Your task to perform on an android device: Add "rayovac triple a" to the cart on amazon, then select checkout. Image 0: 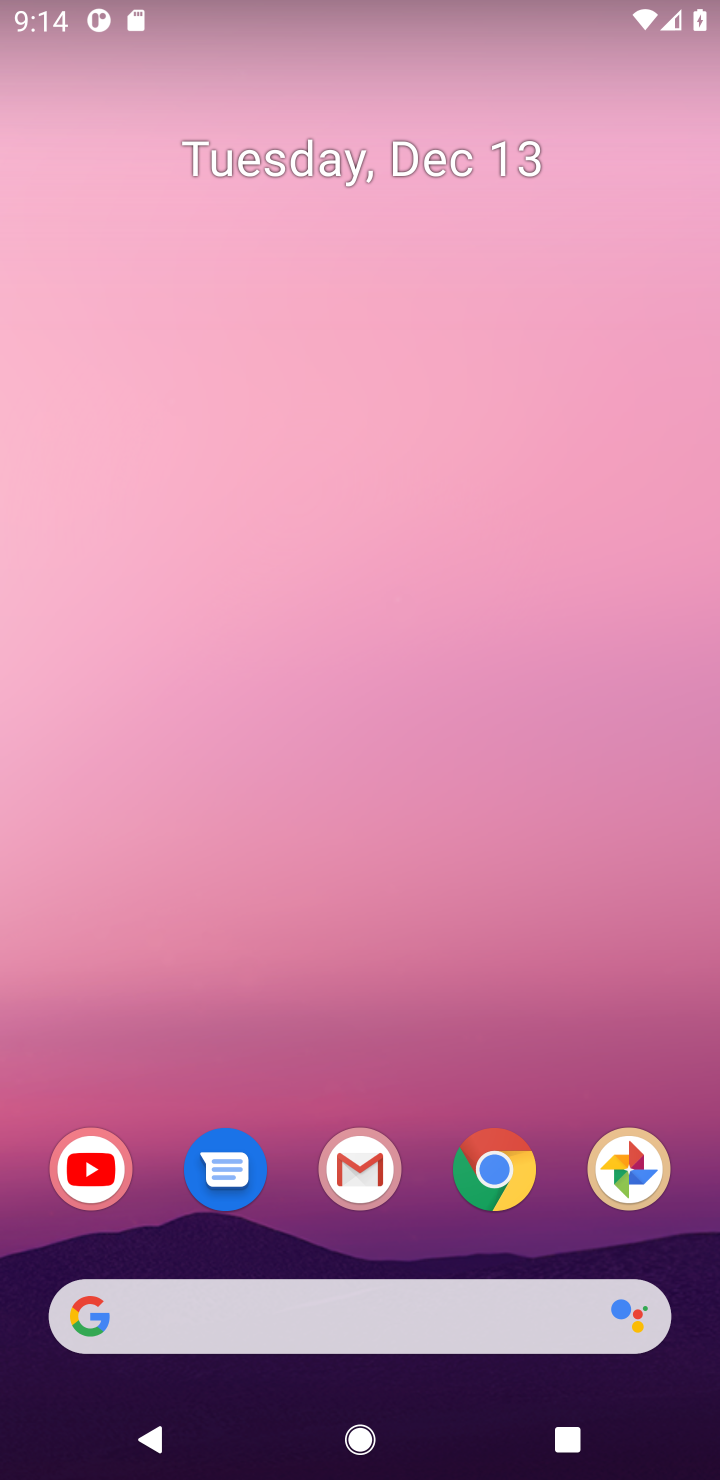
Step 0: click (514, 1185)
Your task to perform on an android device: Add "rayovac triple a" to the cart on amazon, then select checkout. Image 1: 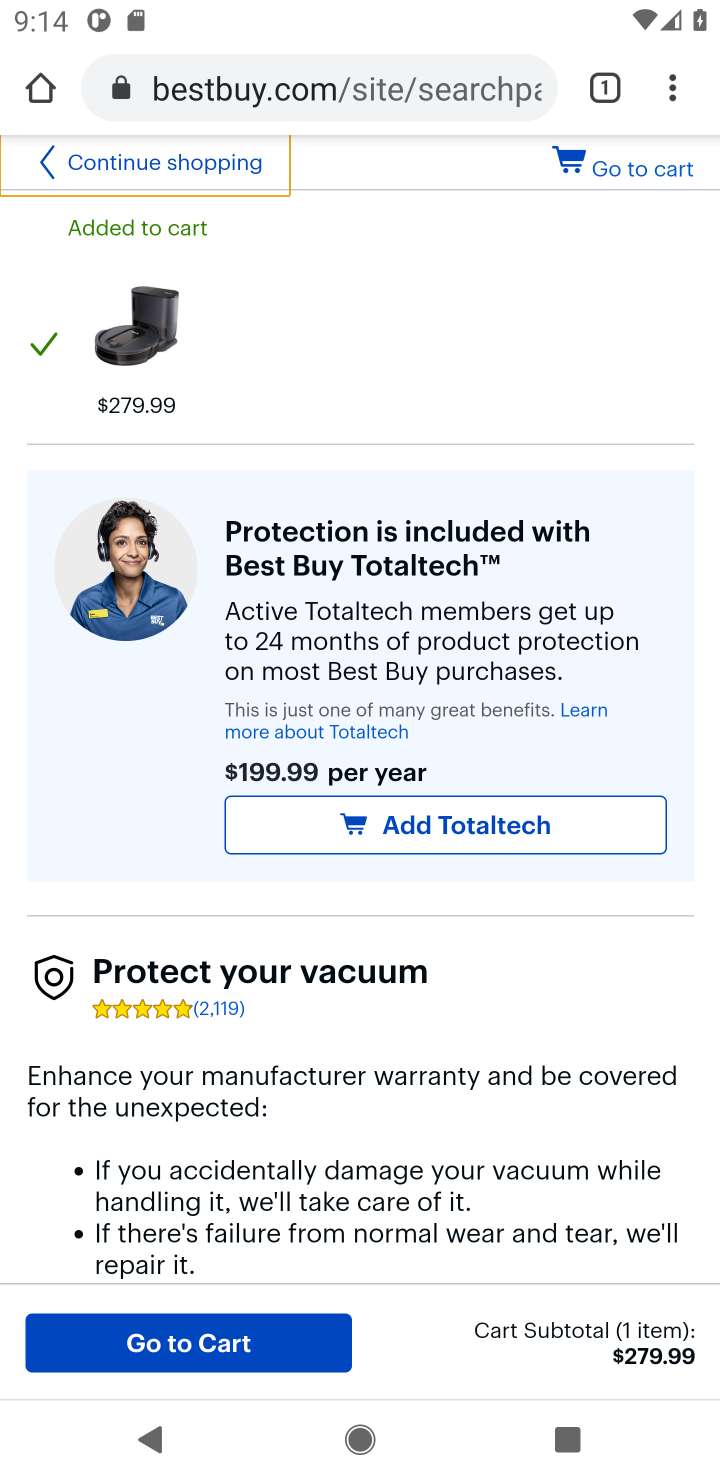
Step 1: click (270, 111)
Your task to perform on an android device: Add "rayovac triple a" to the cart on amazon, then select checkout. Image 2: 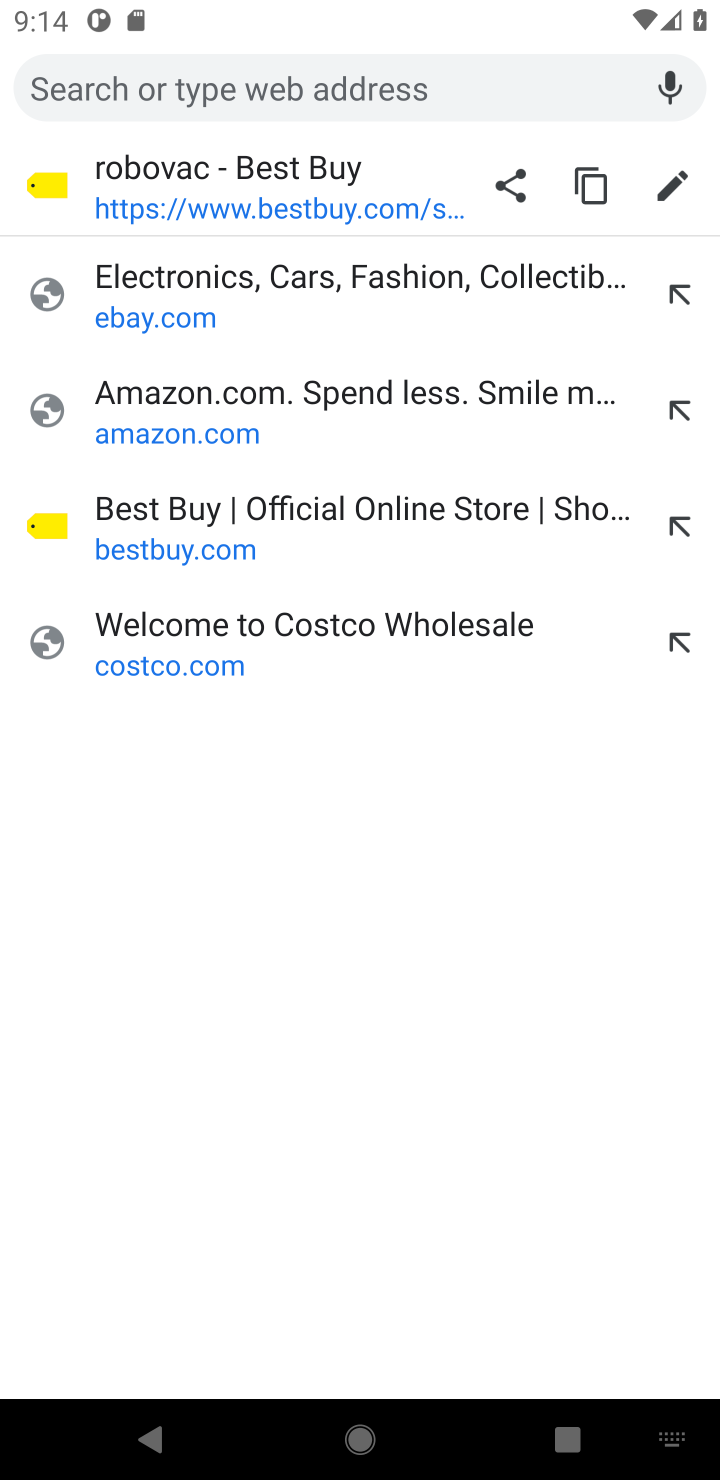
Step 2: type "amazon"
Your task to perform on an android device: Add "rayovac triple a" to the cart on amazon, then select checkout. Image 3: 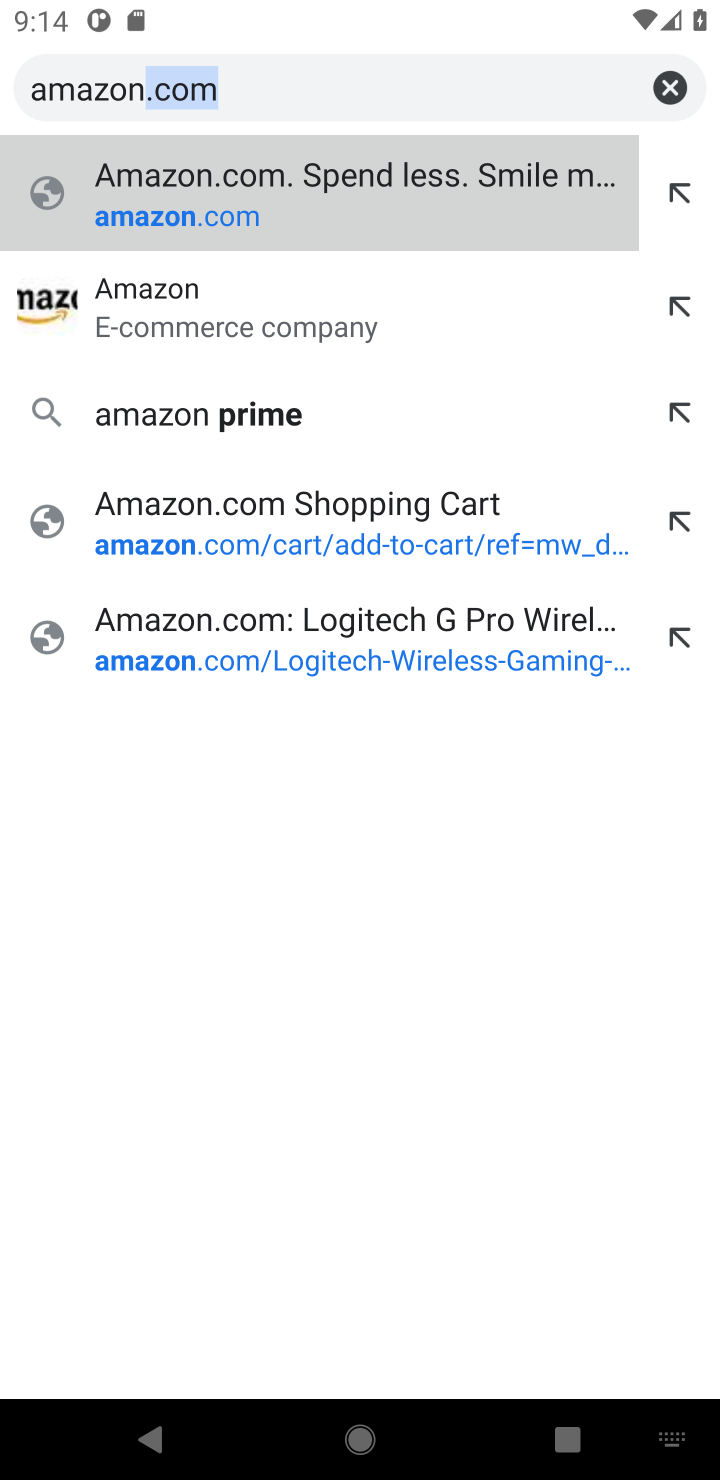
Step 3: click (285, 218)
Your task to perform on an android device: Add "rayovac triple a" to the cart on amazon, then select checkout. Image 4: 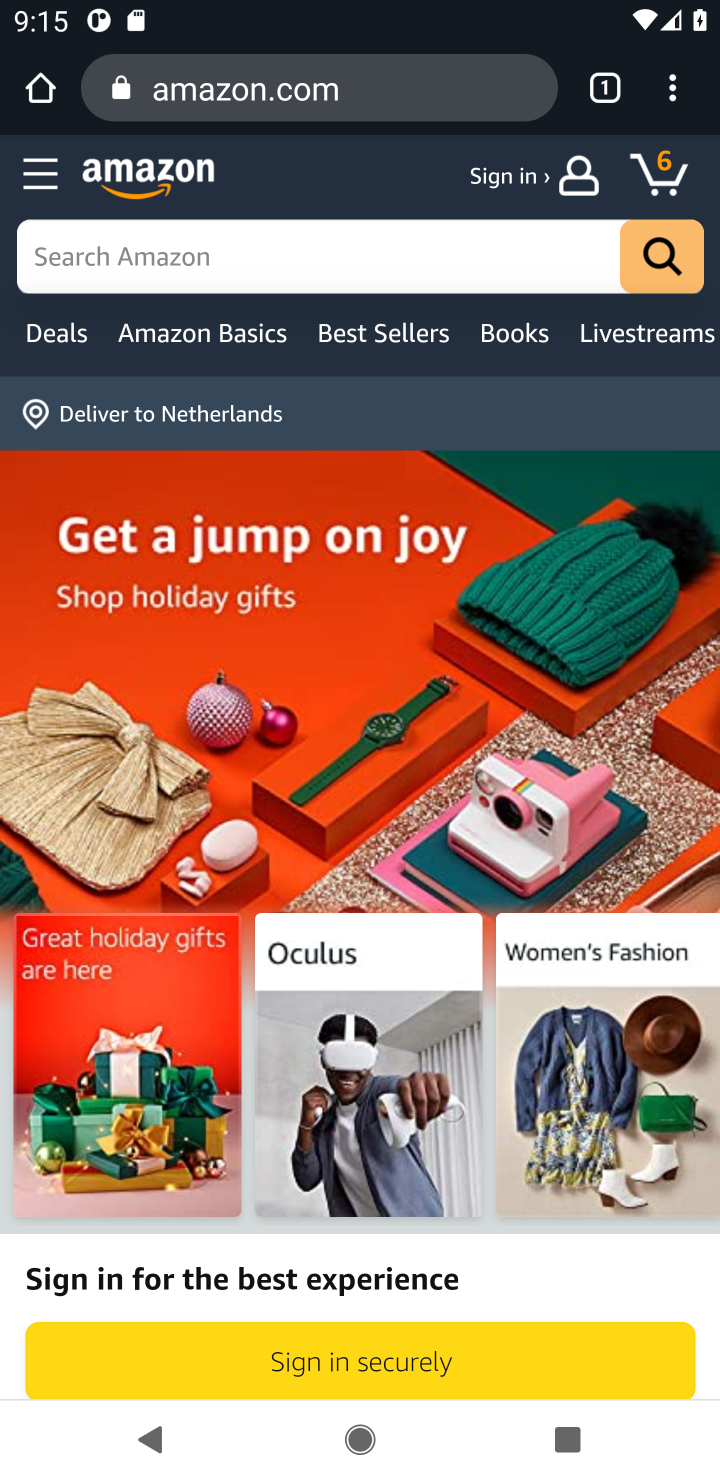
Step 4: click (270, 267)
Your task to perform on an android device: Add "rayovac triple a" to the cart on amazon, then select checkout. Image 5: 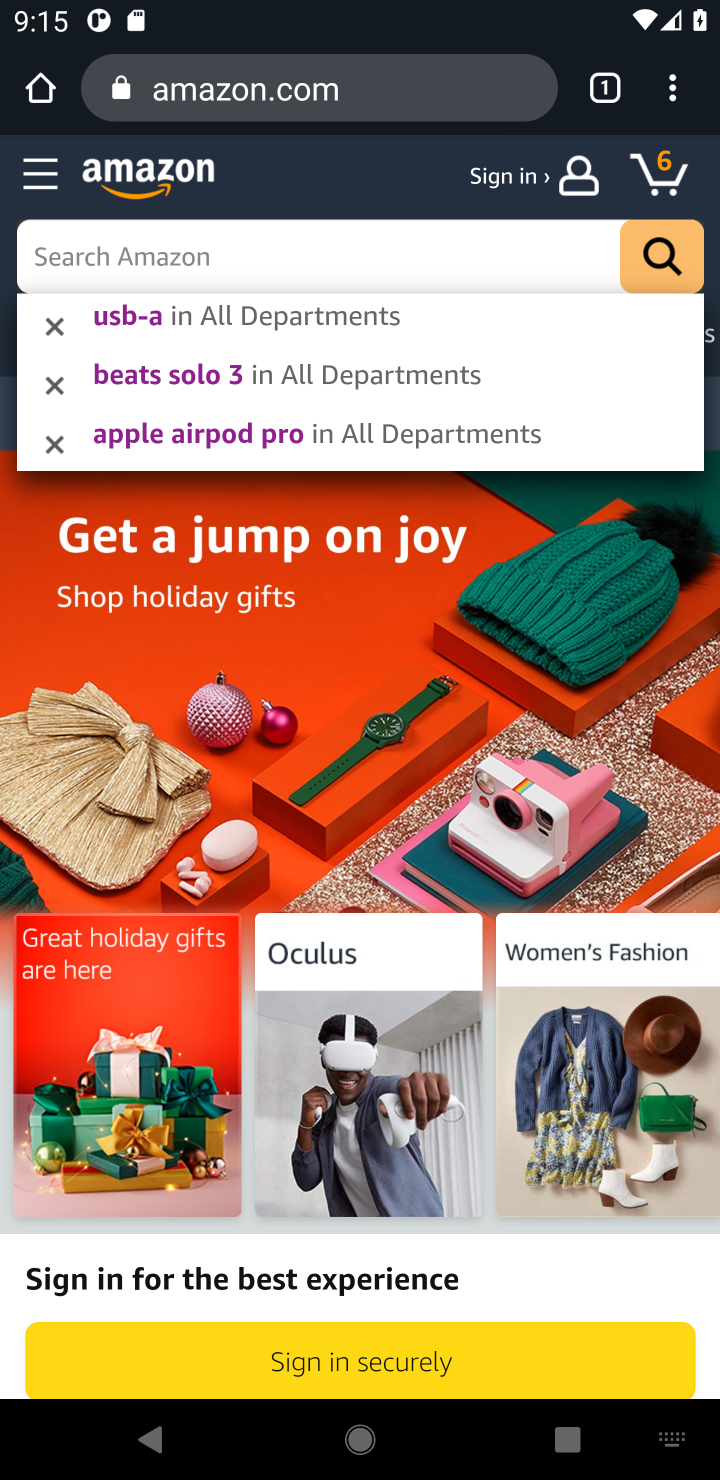
Step 5: type "rayovac triple a"
Your task to perform on an android device: Add "rayovac triple a" to the cart on amazon, then select checkout. Image 6: 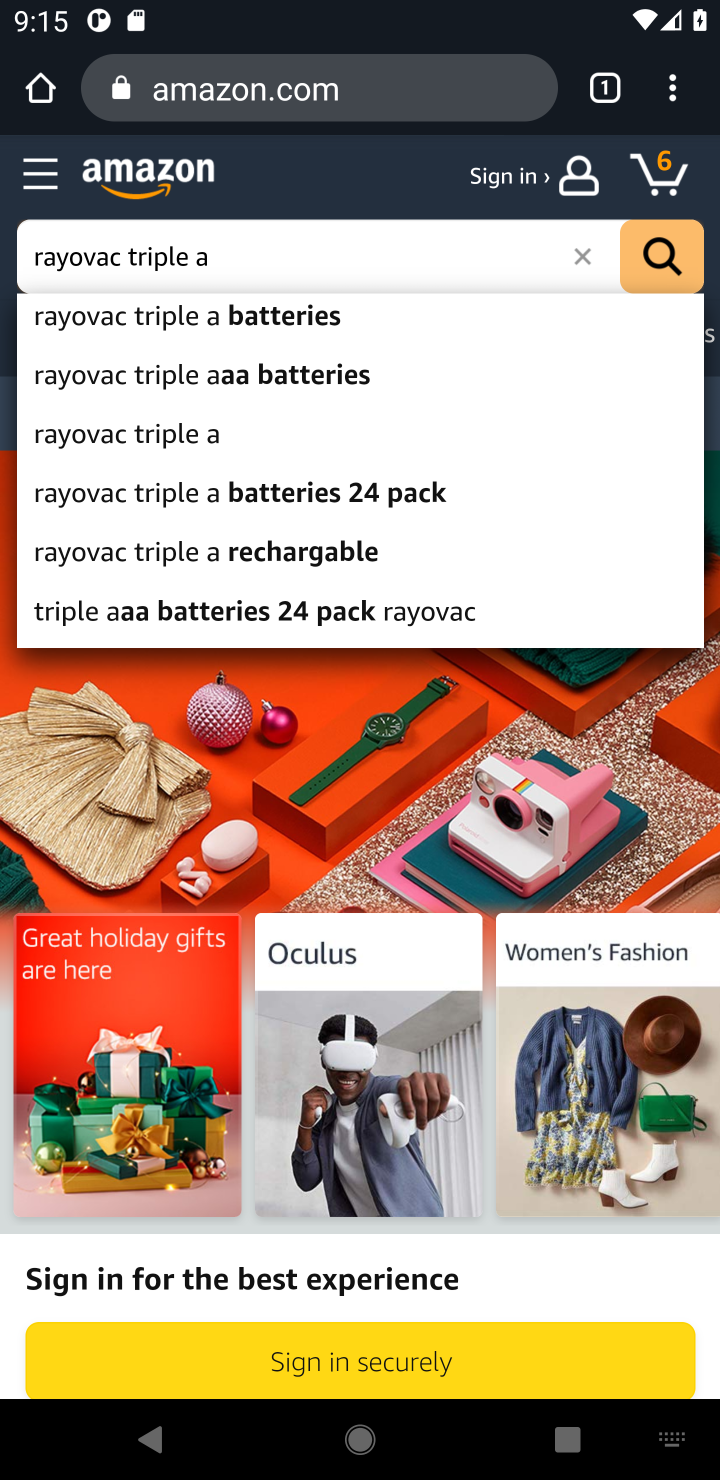
Step 6: click (632, 280)
Your task to perform on an android device: Add "rayovac triple a" to the cart on amazon, then select checkout. Image 7: 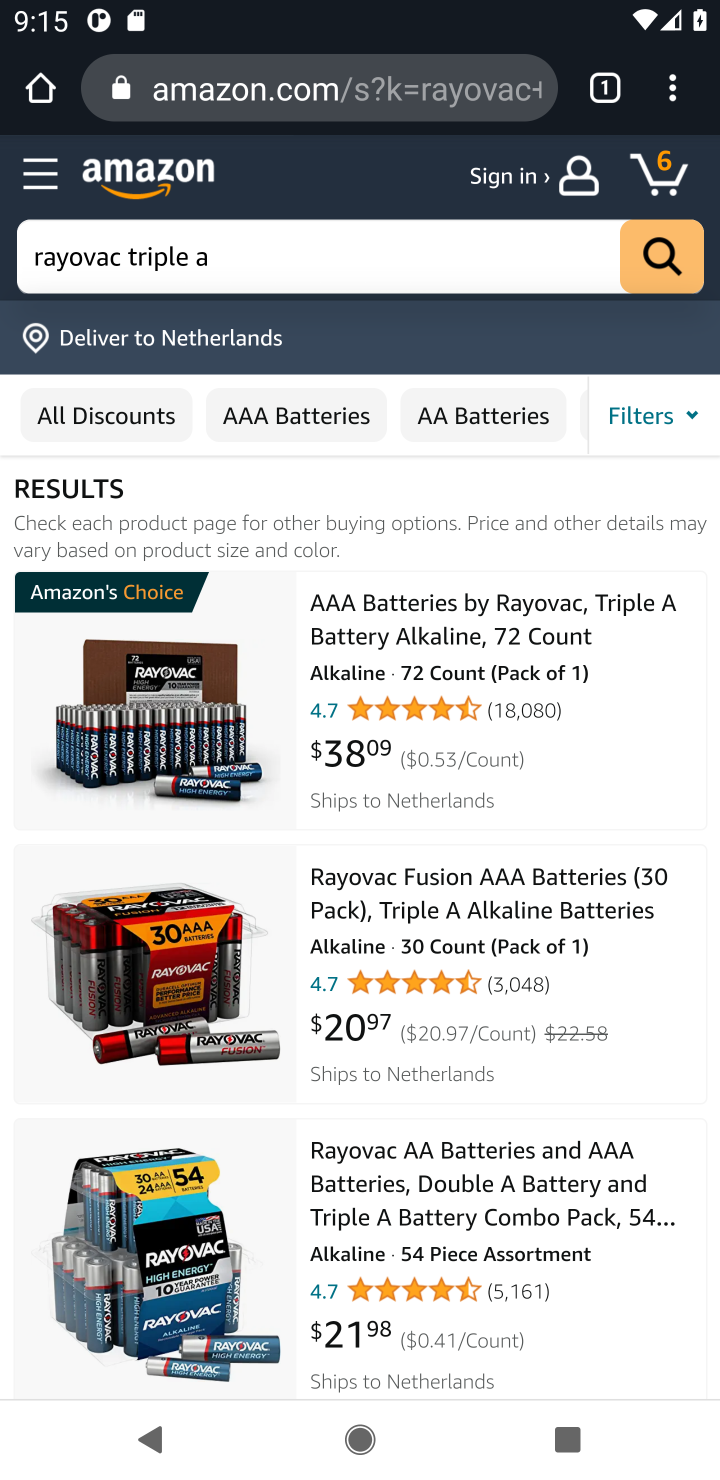
Step 7: click (372, 649)
Your task to perform on an android device: Add "rayovac triple a" to the cart on amazon, then select checkout. Image 8: 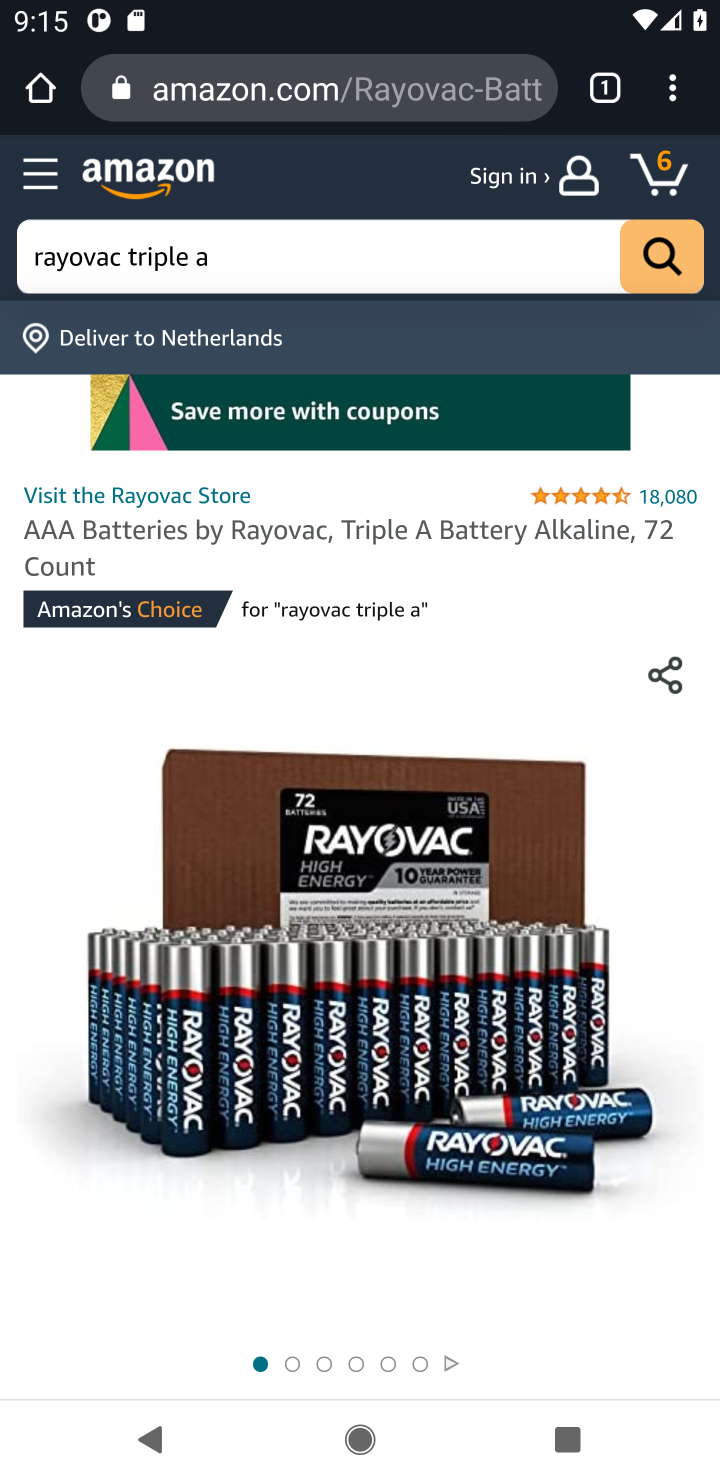
Step 8: drag from (283, 994) to (435, 479)
Your task to perform on an android device: Add "rayovac triple a" to the cart on amazon, then select checkout. Image 9: 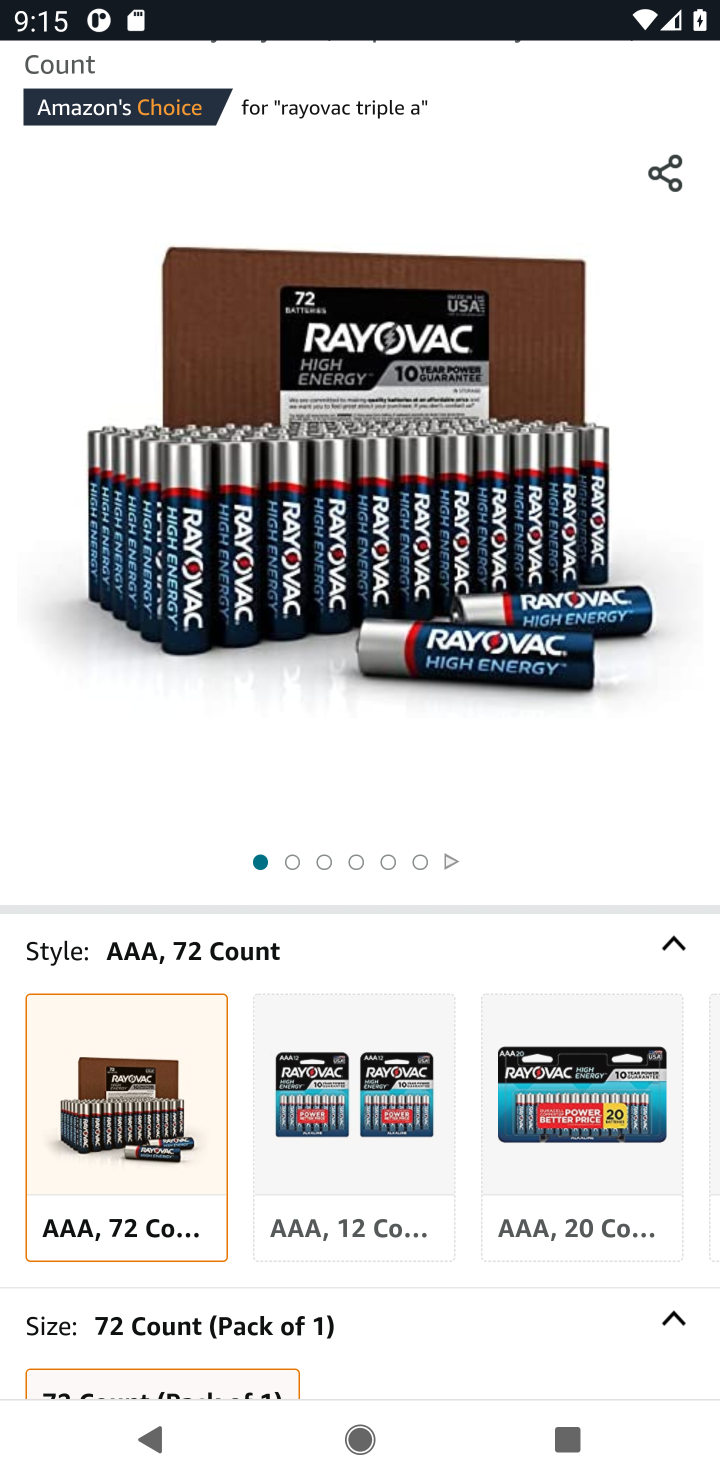
Step 9: drag from (369, 1293) to (488, 395)
Your task to perform on an android device: Add "rayovac triple a" to the cart on amazon, then select checkout. Image 10: 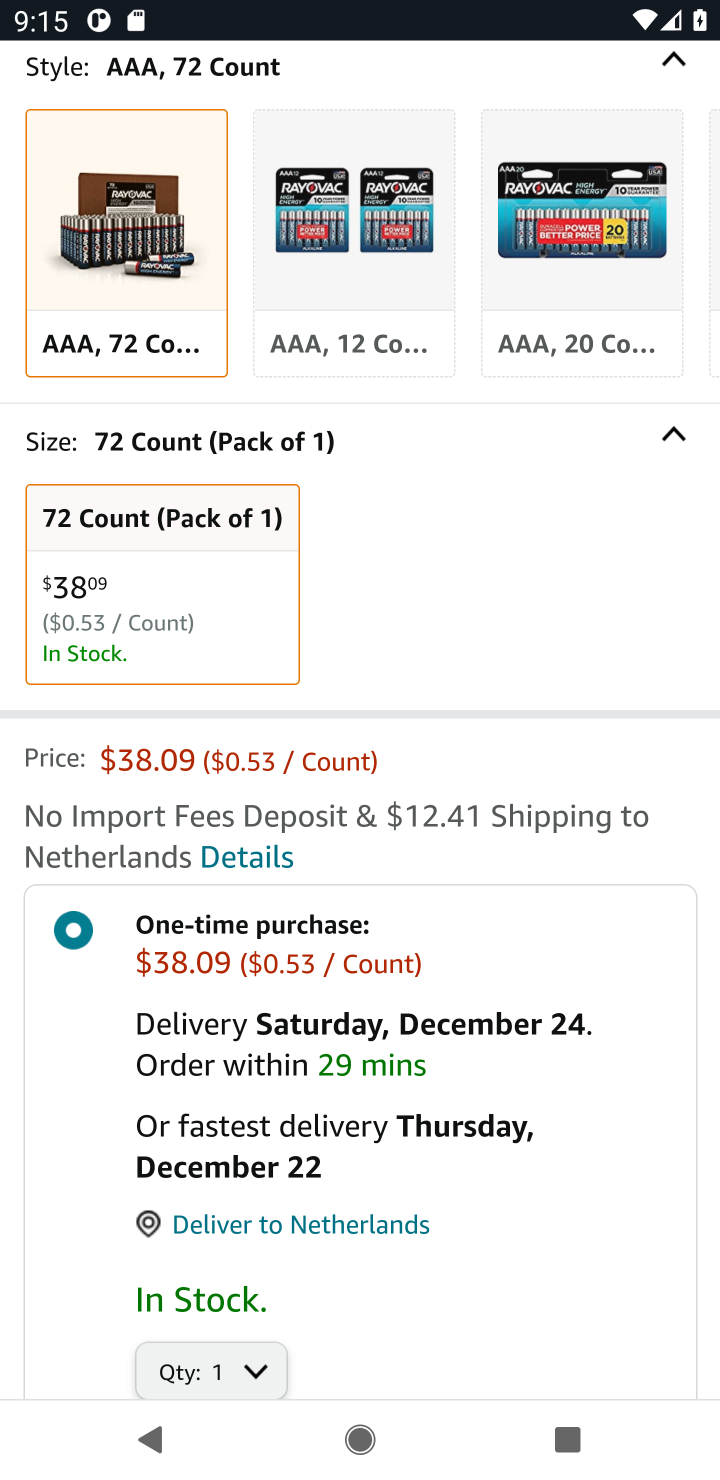
Step 10: drag from (545, 1268) to (508, 499)
Your task to perform on an android device: Add "rayovac triple a" to the cart on amazon, then select checkout. Image 11: 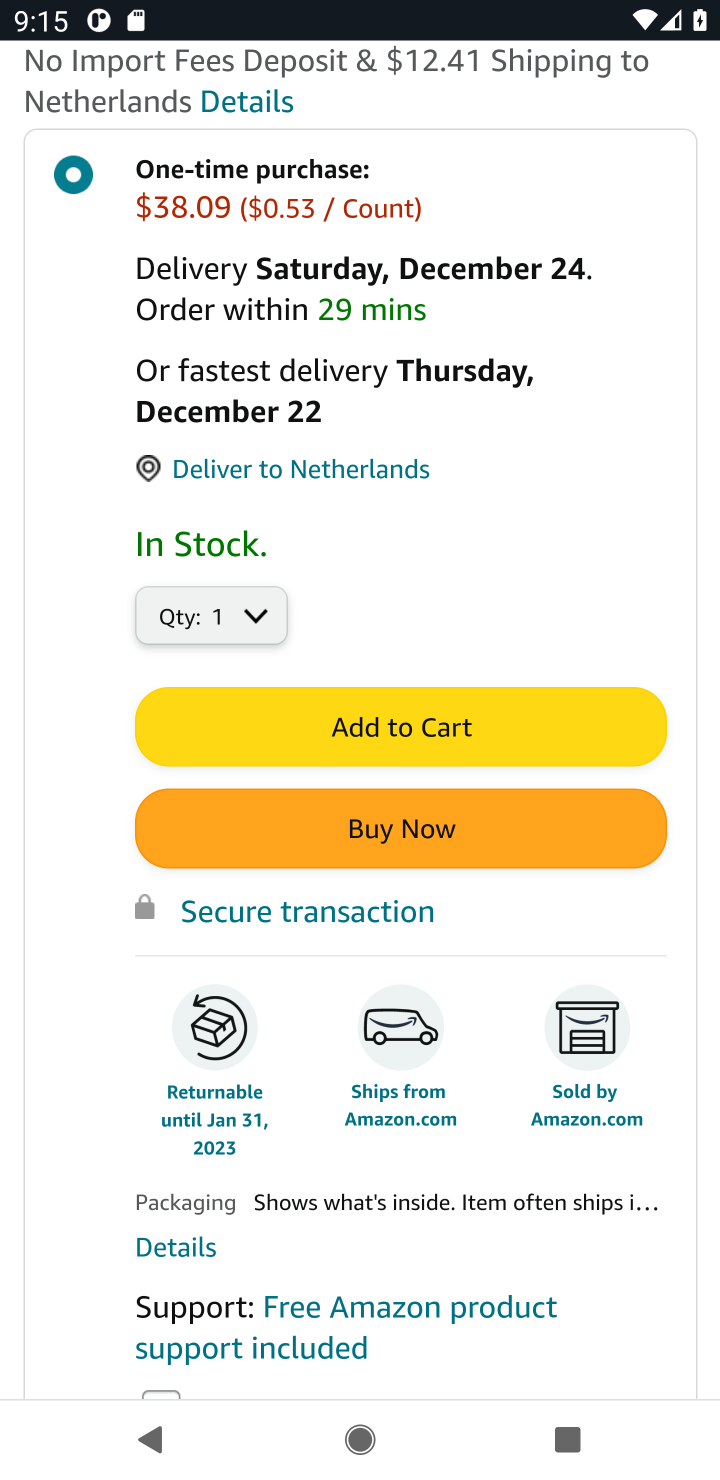
Step 11: click (478, 733)
Your task to perform on an android device: Add "rayovac triple a" to the cart on amazon, then select checkout. Image 12: 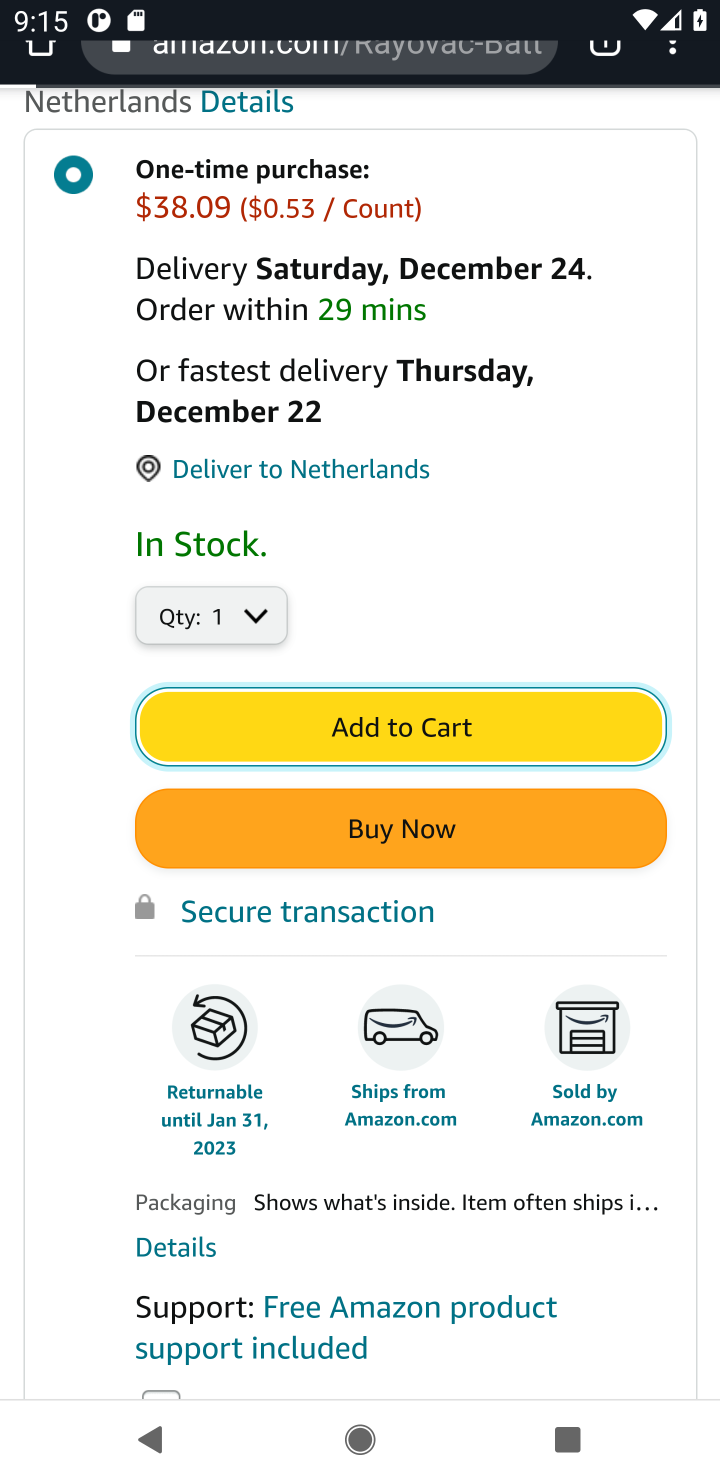
Step 12: task complete